Your task to perform on an android device: Open Reddit.com Image 0: 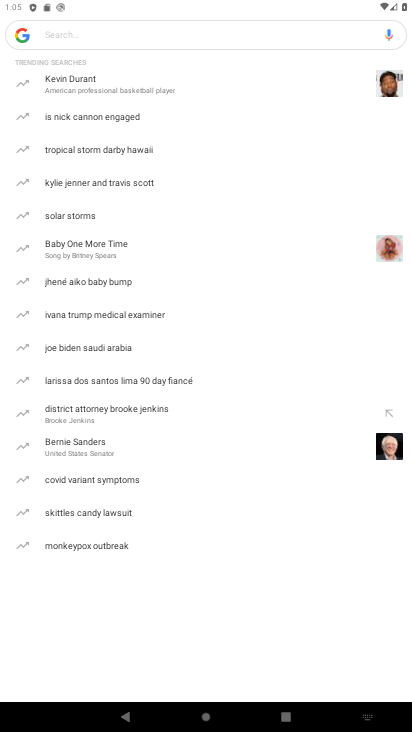
Step 0: type "reddiut"
Your task to perform on an android device: Open Reddit.com Image 1: 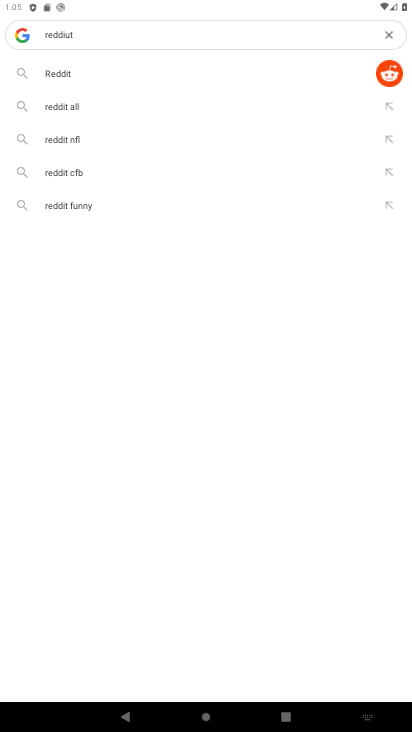
Step 1: click (55, 60)
Your task to perform on an android device: Open Reddit.com Image 2: 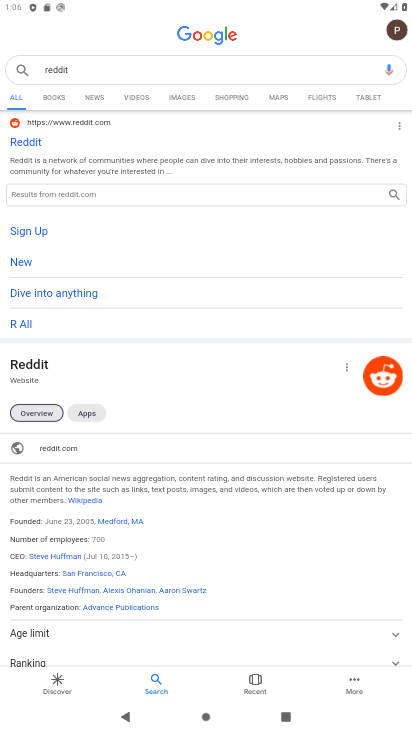
Step 2: click (24, 157)
Your task to perform on an android device: Open Reddit.com Image 3: 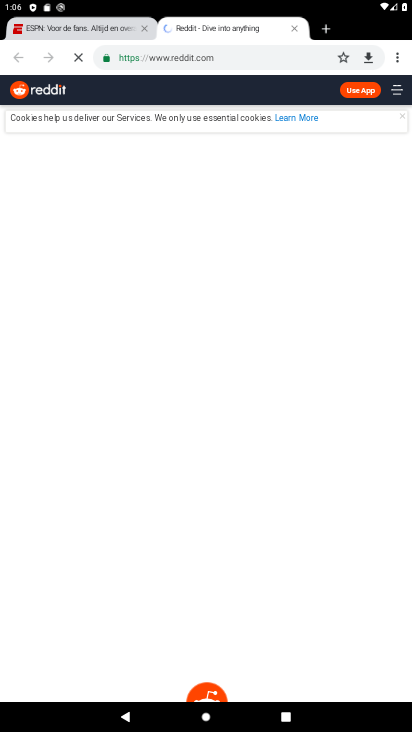
Step 3: task complete